Your task to perform on an android device: delete browsing data in the chrome app Image 0: 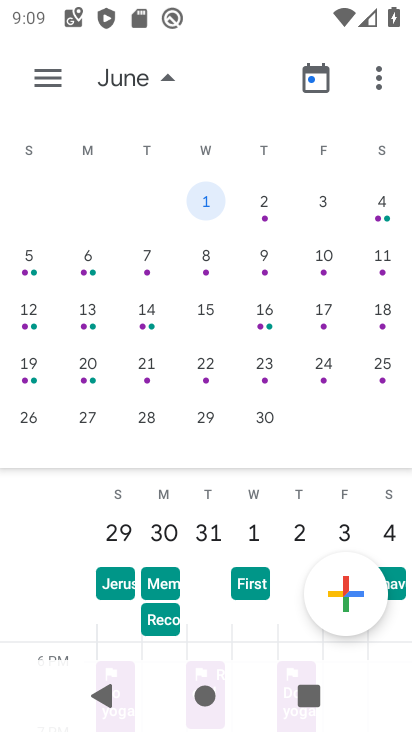
Step 0: press home button
Your task to perform on an android device: delete browsing data in the chrome app Image 1: 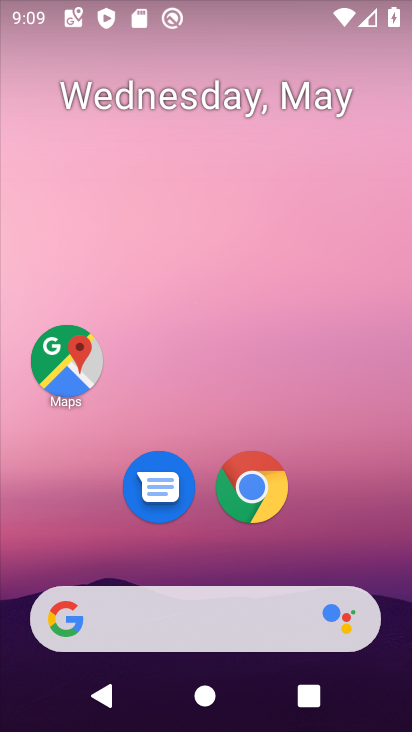
Step 1: drag from (335, 520) to (269, 105)
Your task to perform on an android device: delete browsing data in the chrome app Image 2: 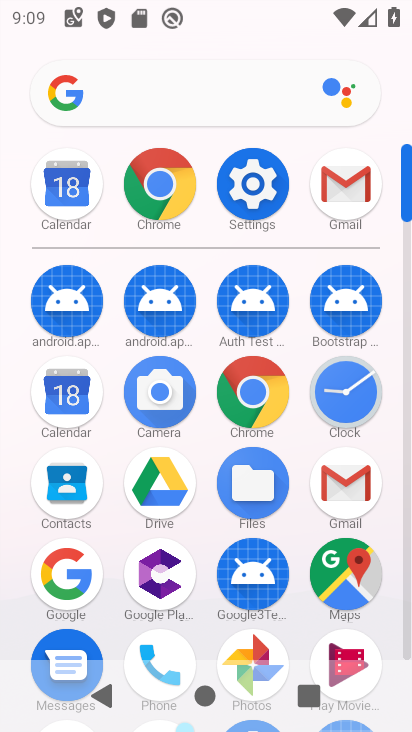
Step 2: click (161, 188)
Your task to perform on an android device: delete browsing data in the chrome app Image 3: 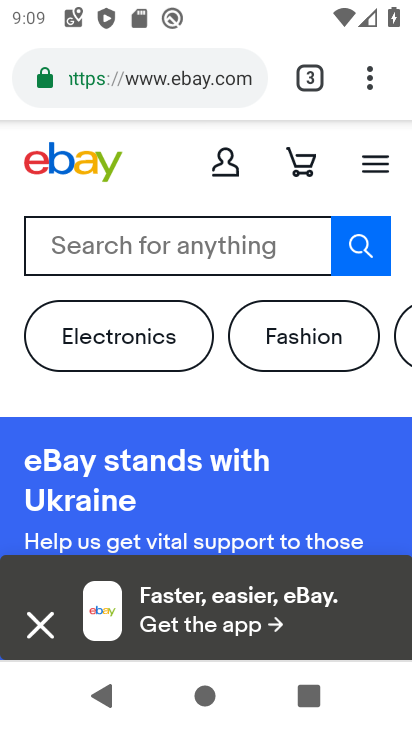
Step 3: click (371, 79)
Your task to perform on an android device: delete browsing data in the chrome app Image 4: 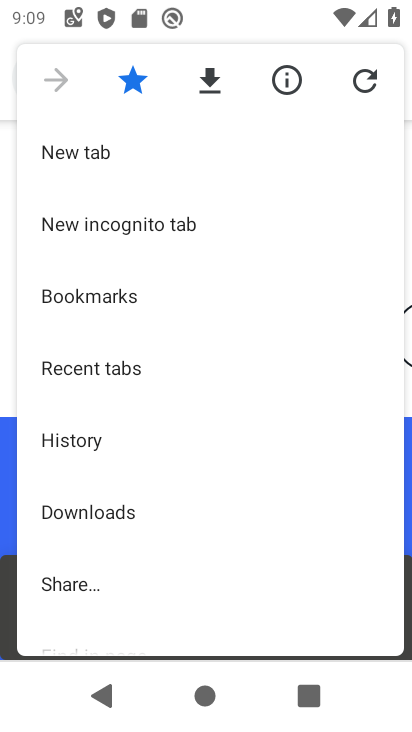
Step 4: click (81, 437)
Your task to perform on an android device: delete browsing data in the chrome app Image 5: 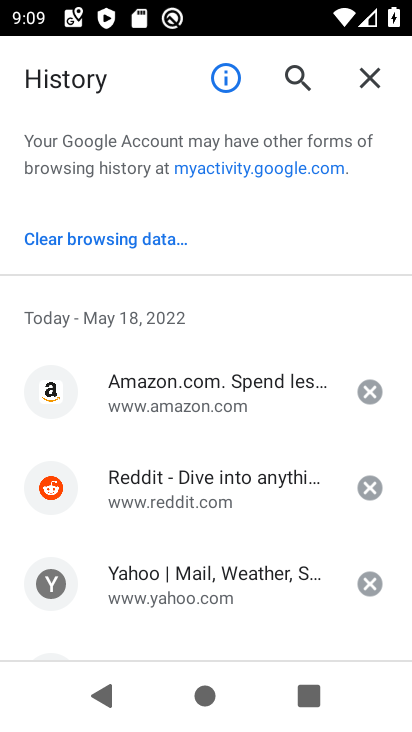
Step 5: click (120, 237)
Your task to perform on an android device: delete browsing data in the chrome app Image 6: 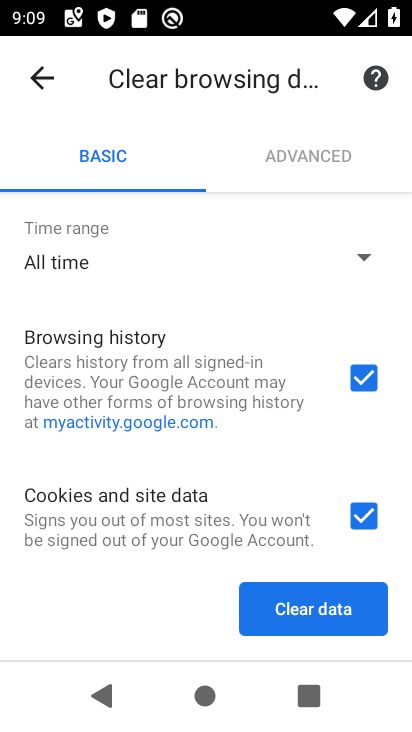
Step 6: click (324, 607)
Your task to perform on an android device: delete browsing data in the chrome app Image 7: 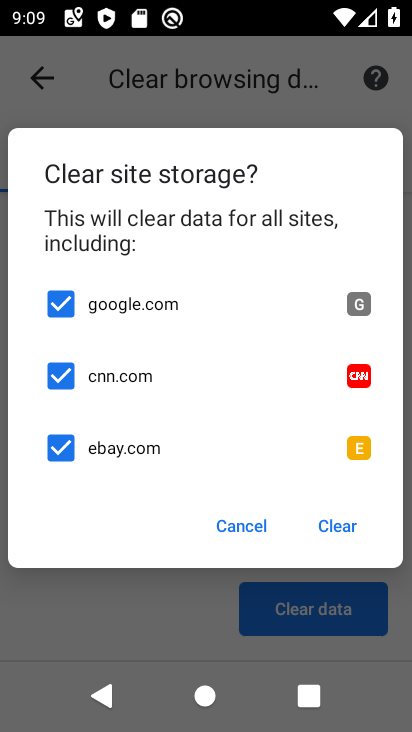
Step 7: click (342, 518)
Your task to perform on an android device: delete browsing data in the chrome app Image 8: 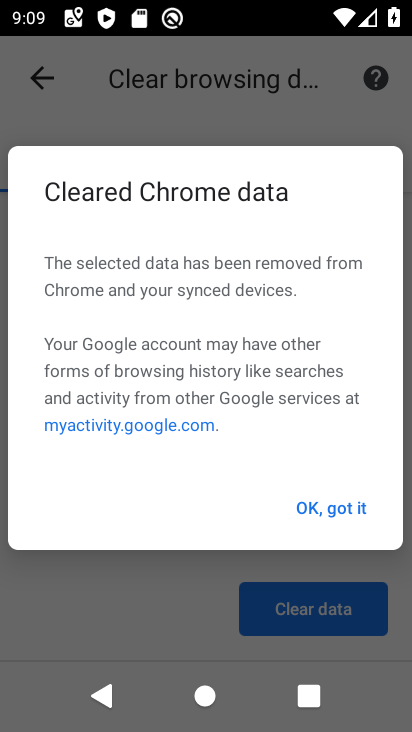
Step 8: click (315, 514)
Your task to perform on an android device: delete browsing data in the chrome app Image 9: 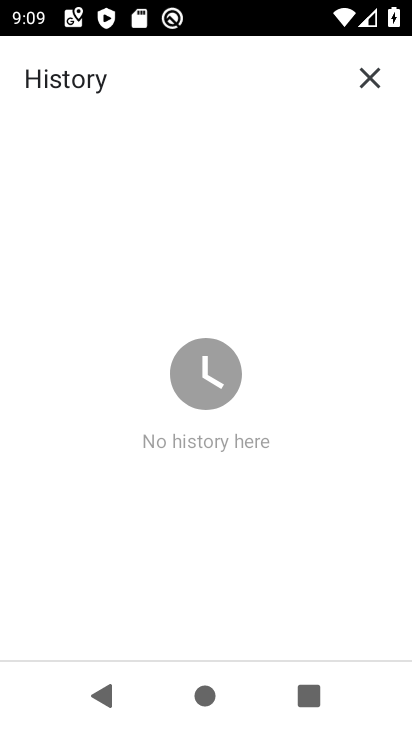
Step 9: task complete